Your task to perform on an android device: Go to calendar. Show me events next week Image 0: 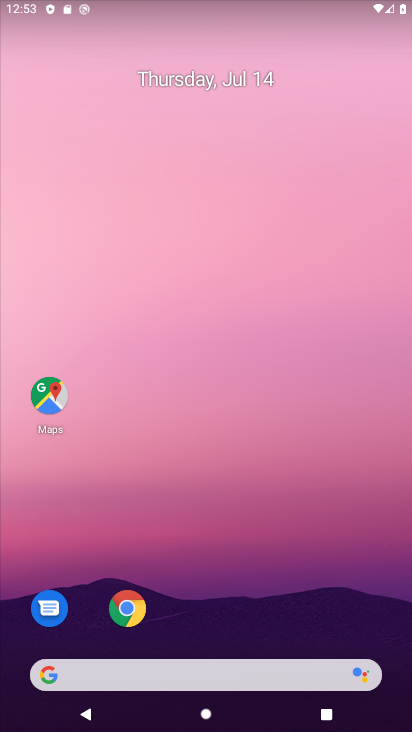
Step 0: drag from (386, 633) to (319, 34)
Your task to perform on an android device: Go to calendar. Show me events next week Image 1: 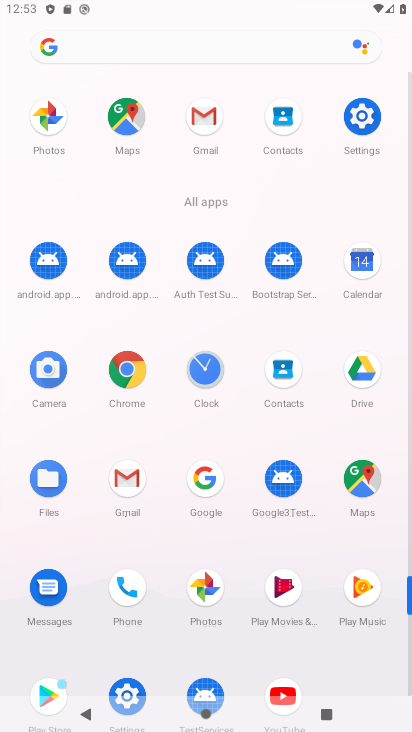
Step 1: click (360, 261)
Your task to perform on an android device: Go to calendar. Show me events next week Image 2: 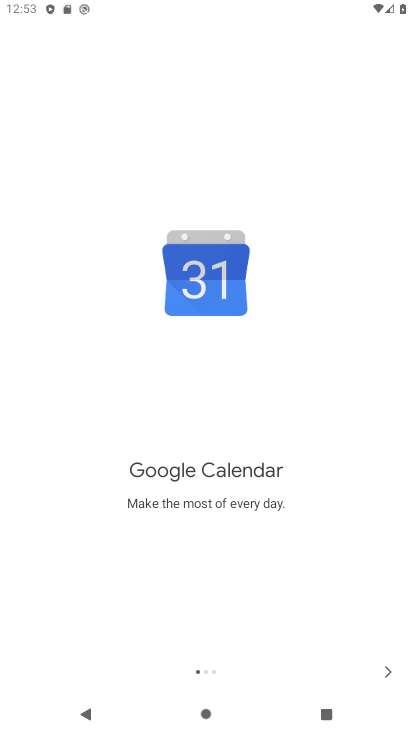
Step 2: click (389, 673)
Your task to perform on an android device: Go to calendar. Show me events next week Image 3: 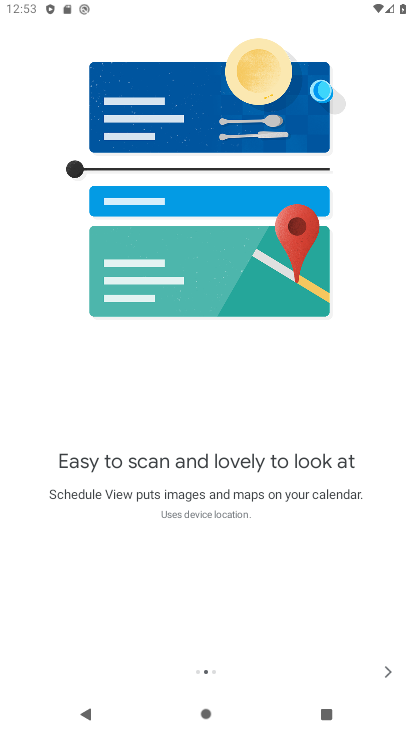
Step 3: click (389, 673)
Your task to perform on an android device: Go to calendar. Show me events next week Image 4: 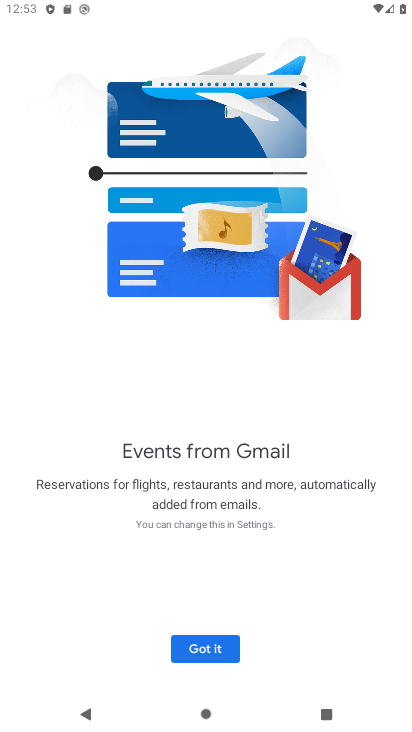
Step 4: click (196, 646)
Your task to perform on an android device: Go to calendar. Show me events next week Image 5: 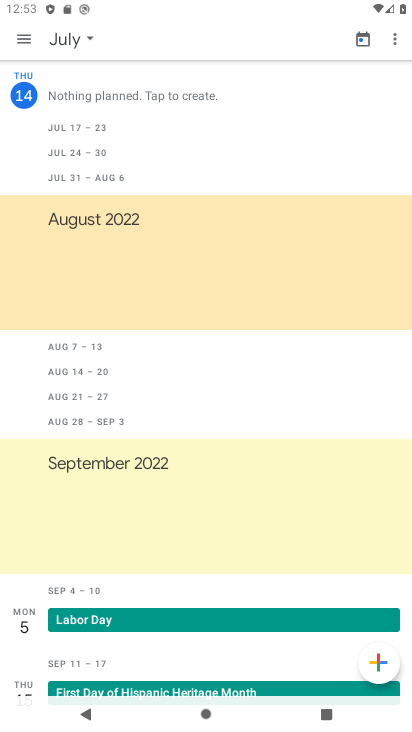
Step 5: click (24, 46)
Your task to perform on an android device: Go to calendar. Show me events next week Image 6: 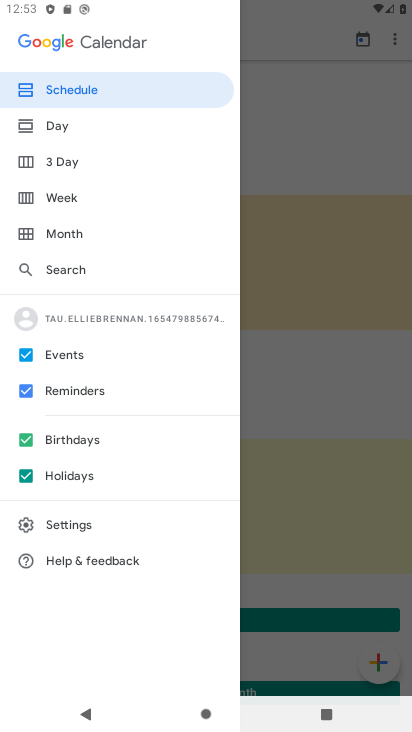
Step 6: click (51, 197)
Your task to perform on an android device: Go to calendar. Show me events next week Image 7: 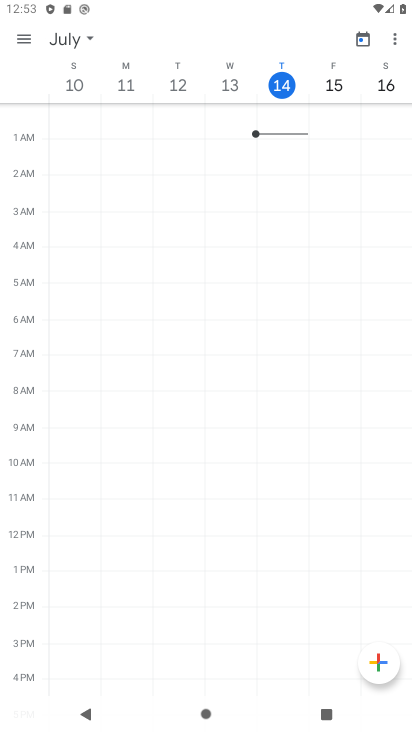
Step 7: click (86, 39)
Your task to perform on an android device: Go to calendar. Show me events next week Image 8: 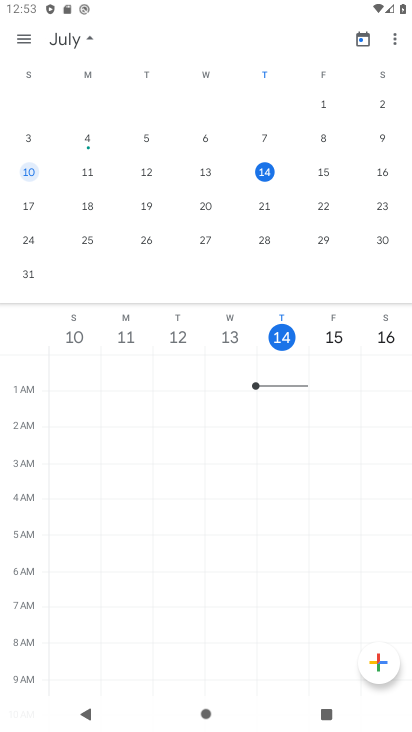
Step 8: click (27, 205)
Your task to perform on an android device: Go to calendar. Show me events next week Image 9: 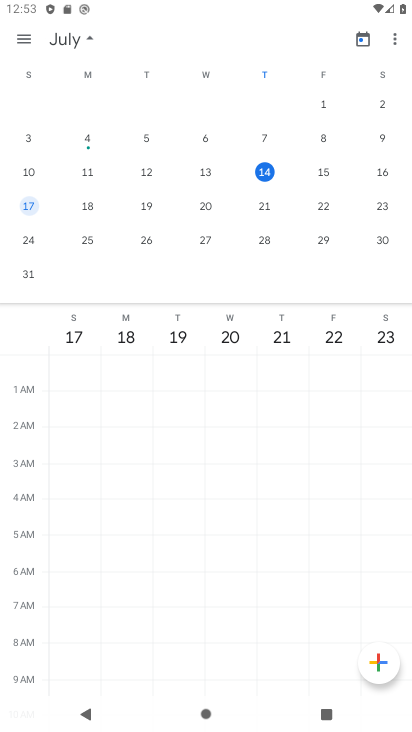
Step 9: task complete